Your task to perform on an android device: Find coffee shops on Maps Image 0: 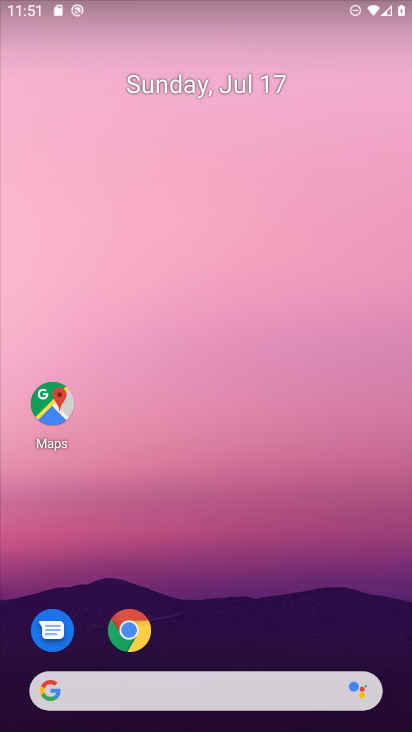
Step 0: drag from (224, 590) to (232, 0)
Your task to perform on an android device: Find coffee shops on Maps Image 1: 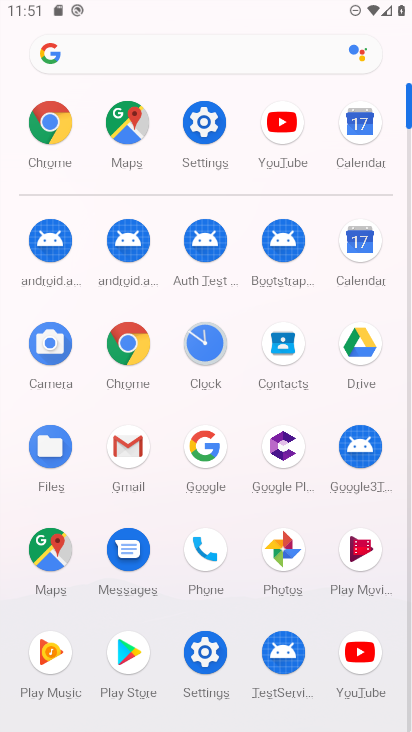
Step 1: click (58, 572)
Your task to perform on an android device: Find coffee shops on Maps Image 2: 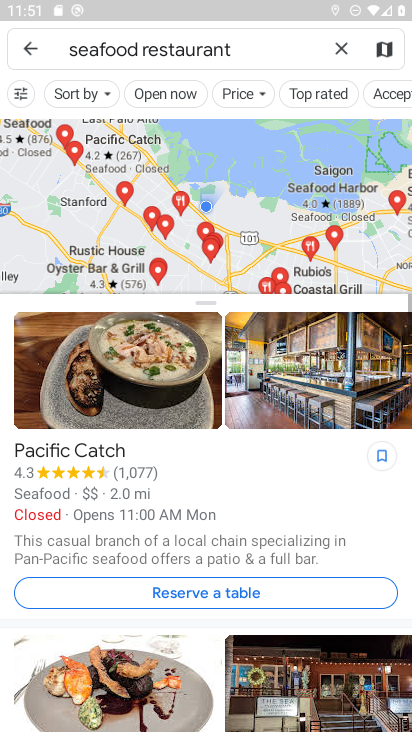
Step 2: click (337, 54)
Your task to perform on an android device: Find coffee shops on Maps Image 3: 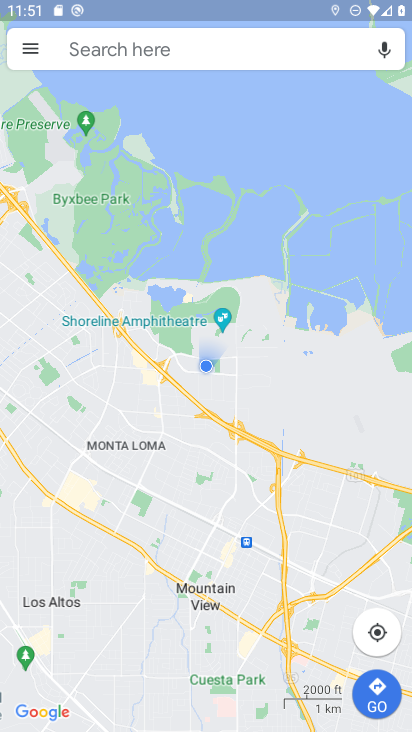
Step 3: click (273, 55)
Your task to perform on an android device: Find coffee shops on Maps Image 4: 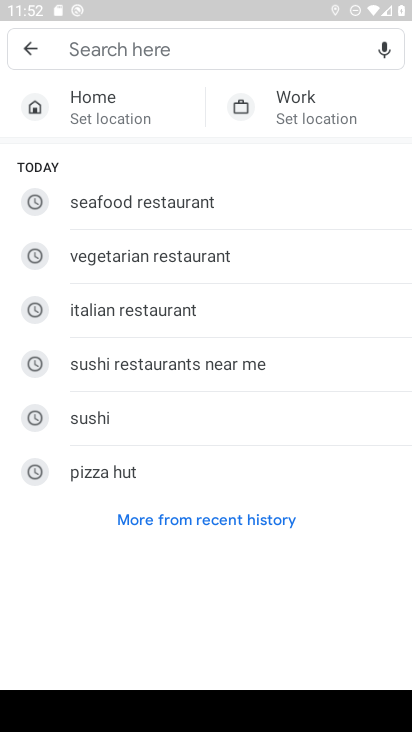
Step 4: type "coffee shops"
Your task to perform on an android device: Find coffee shops on Maps Image 5: 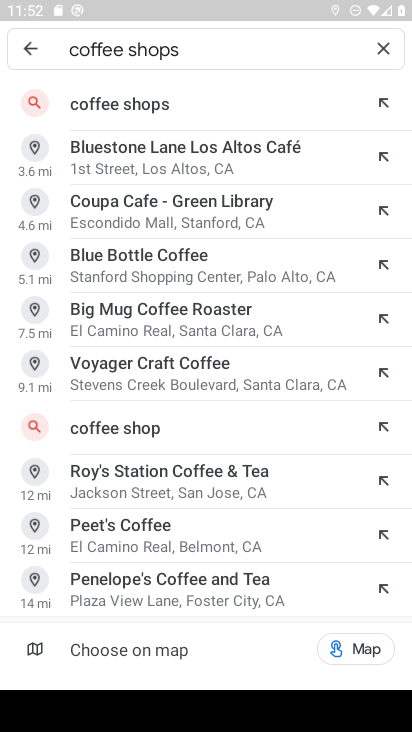
Step 5: click (159, 98)
Your task to perform on an android device: Find coffee shops on Maps Image 6: 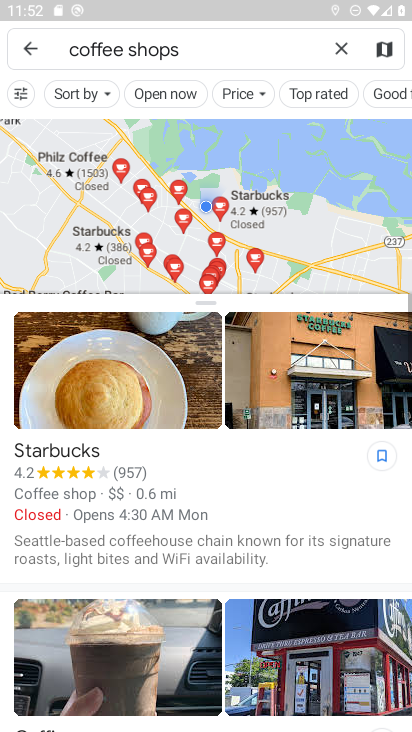
Step 6: task complete